Your task to perform on an android device: Open maps Image 0: 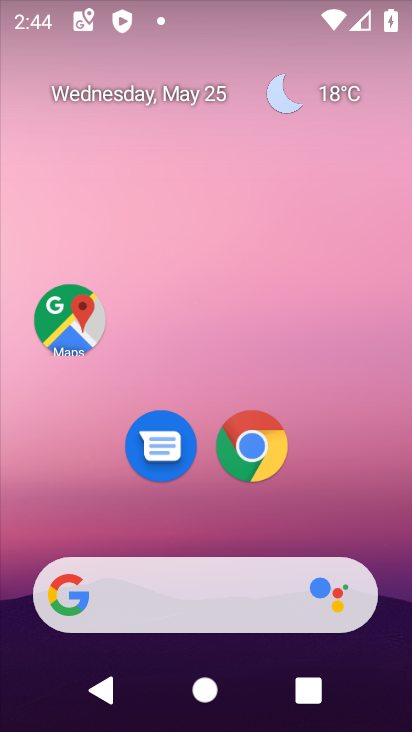
Step 0: click (68, 287)
Your task to perform on an android device: Open maps Image 1: 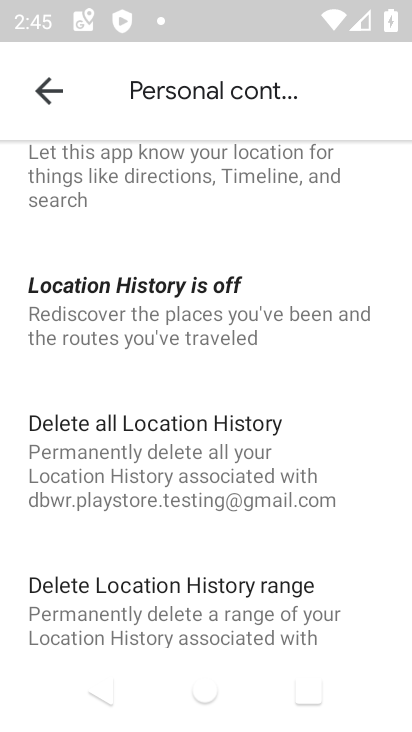
Step 1: click (64, 89)
Your task to perform on an android device: Open maps Image 2: 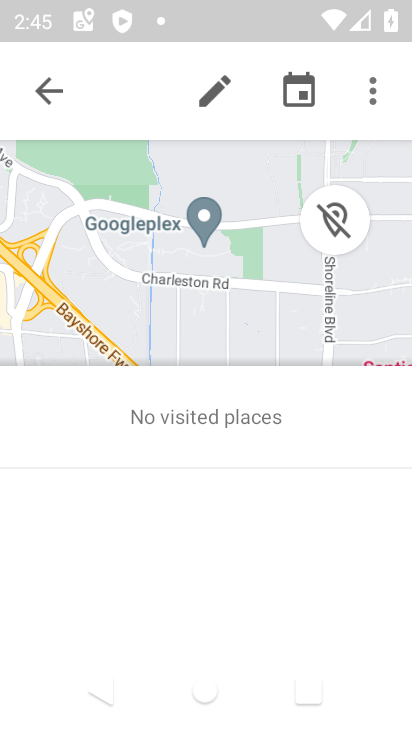
Step 2: task complete